Your task to perform on an android device: Check the news Image 0: 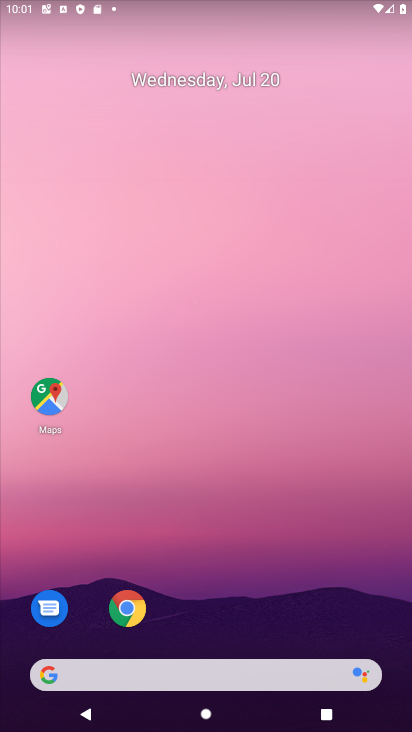
Step 0: drag from (219, 600) to (312, 52)
Your task to perform on an android device: Check the news Image 1: 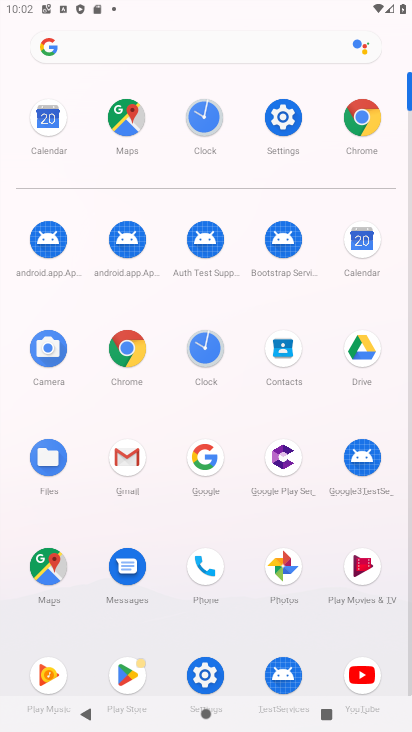
Step 1: click (207, 480)
Your task to perform on an android device: Check the news Image 2: 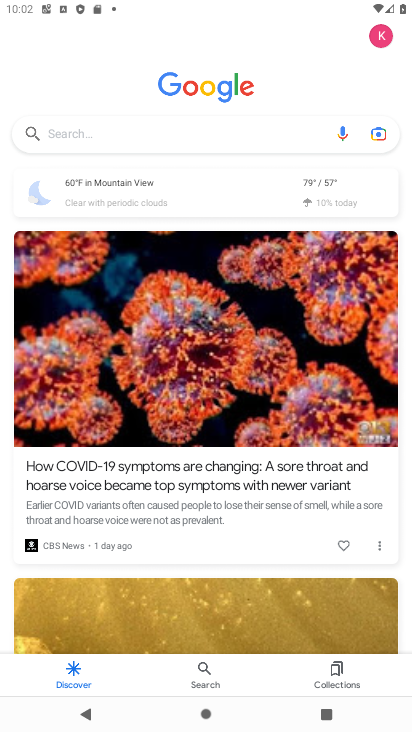
Step 2: task complete